Your task to perform on an android device: What's the news in India? Image 0: 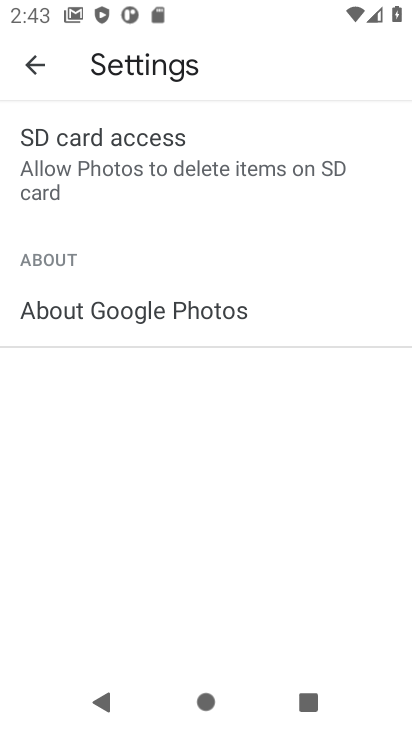
Step 0: press home button
Your task to perform on an android device: What's the news in India? Image 1: 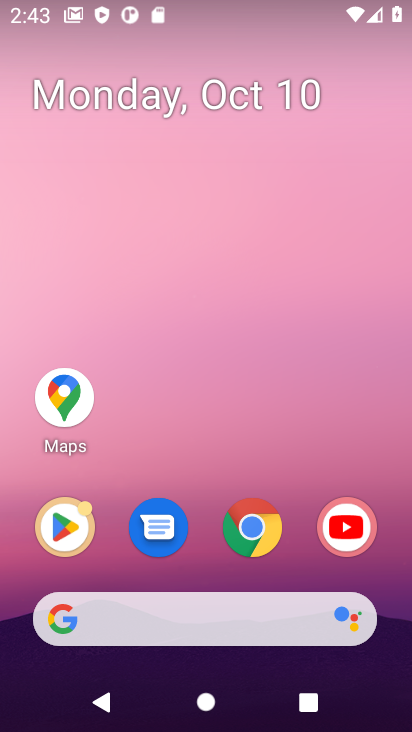
Step 1: click (232, 618)
Your task to perform on an android device: What's the news in India? Image 2: 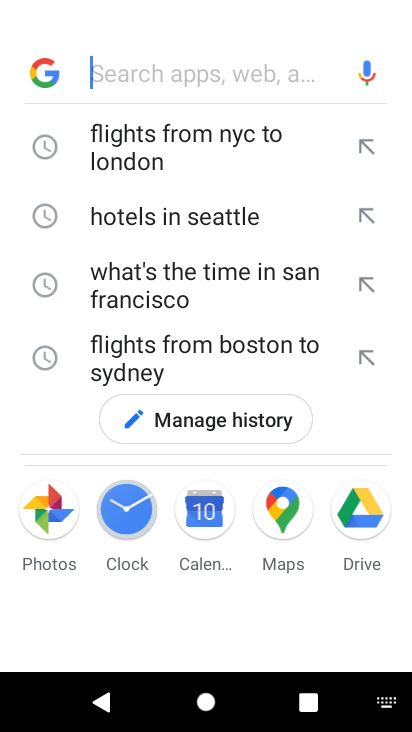
Step 2: type "What's the news in India"
Your task to perform on an android device: What's the news in India? Image 3: 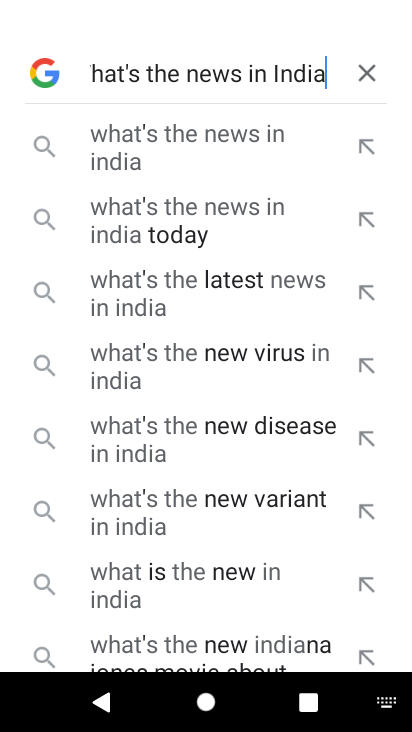
Step 3: press enter
Your task to perform on an android device: What's the news in India? Image 4: 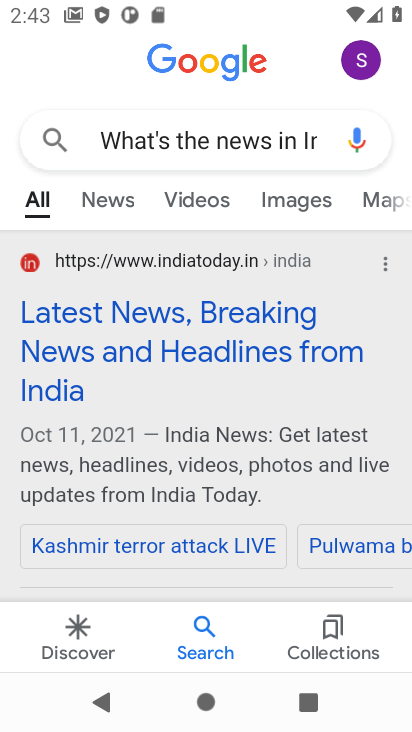
Step 4: click (204, 345)
Your task to perform on an android device: What's the news in India? Image 5: 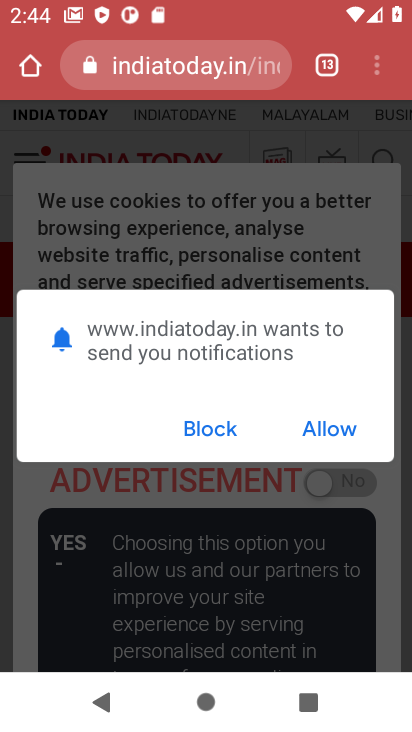
Step 5: click (227, 426)
Your task to perform on an android device: What's the news in India? Image 6: 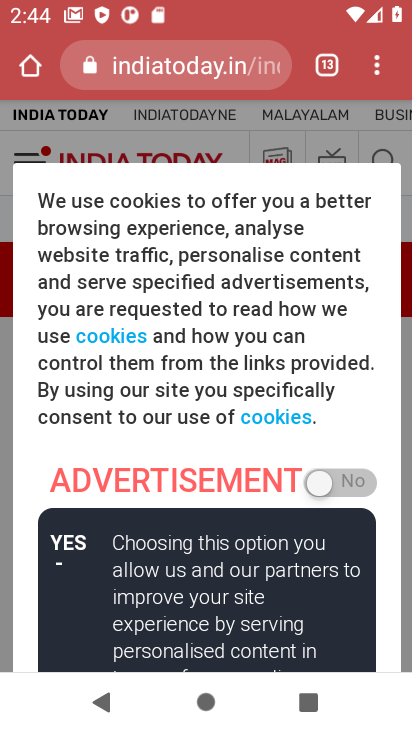
Step 6: drag from (234, 568) to (267, 376)
Your task to perform on an android device: What's the news in India? Image 7: 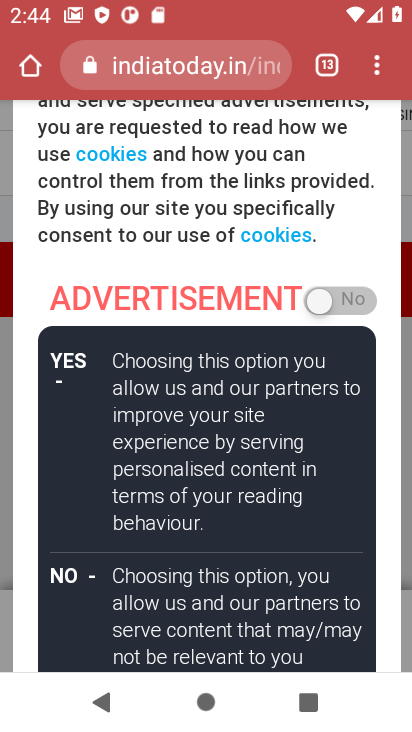
Step 7: drag from (260, 588) to (263, 360)
Your task to perform on an android device: What's the news in India? Image 8: 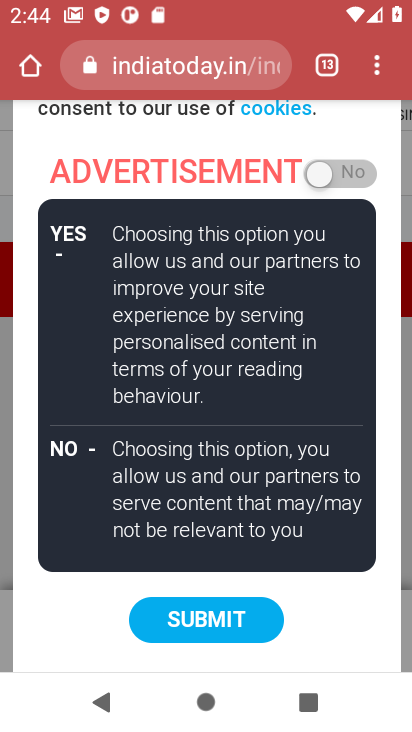
Step 8: click (234, 620)
Your task to perform on an android device: What's the news in India? Image 9: 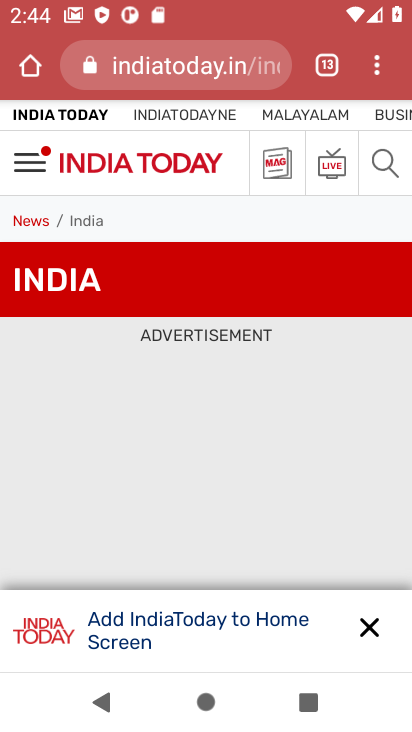
Step 9: drag from (284, 556) to (291, 414)
Your task to perform on an android device: What's the news in India? Image 10: 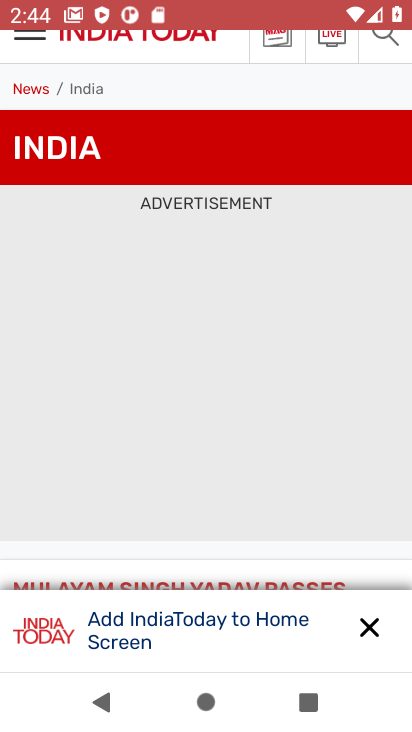
Step 10: click (372, 631)
Your task to perform on an android device: What's the news in India? Image 11: 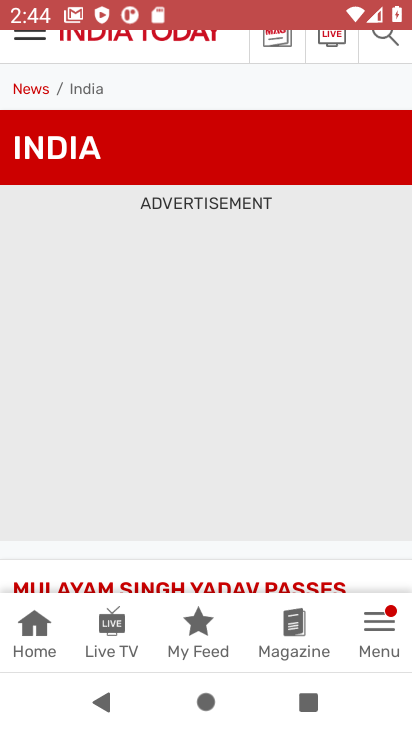
Step 11: task complete